Your task to perform on an android device: Clear all items from cart on newegg.com. Image 0: 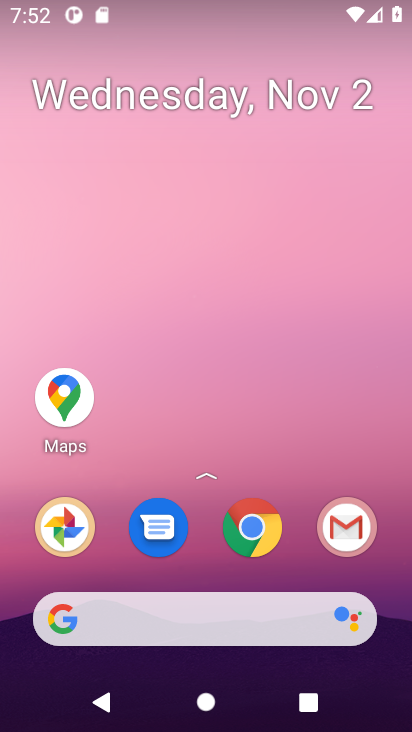
Step 0: click (264, 525)
Your task to perform on an android device: Clear all items from cart on newegg.com. Image 1: 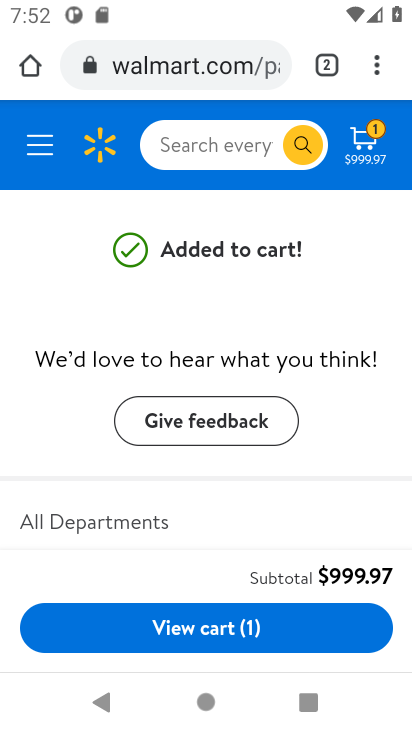
Step 1: click (210, 65)
Your task to perform on an android device: Clear all items from cart on newegg.com. Image 2: 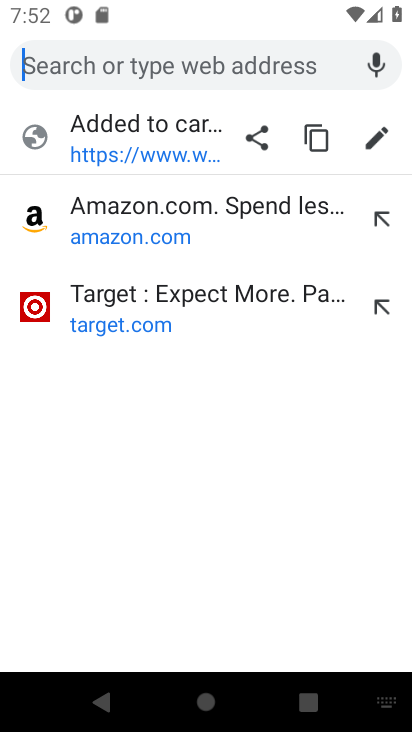
Step 2: type "newegg.com"
Your task to perform on an android device: Clear all items from cart on newegg.com. Image 3: 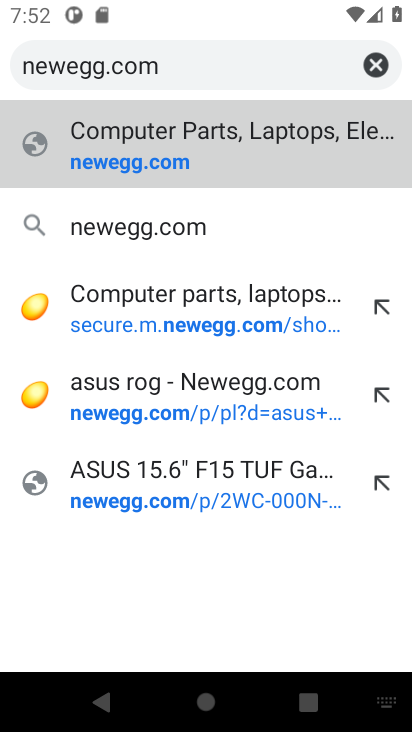
Step 3: click (230, 167)
Your task to perform on an android device: Clear all items from cart on newegg.com. Image 4: 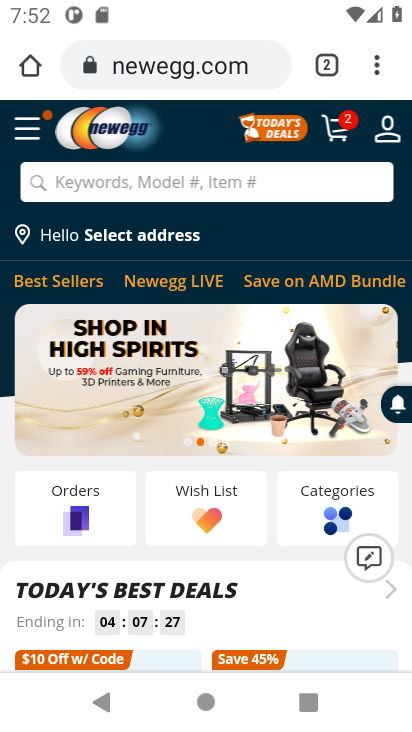
Step 4: click (339, 131)
Your task to perform on an android device: Clear all items from cart on newegg.com. Image 5: 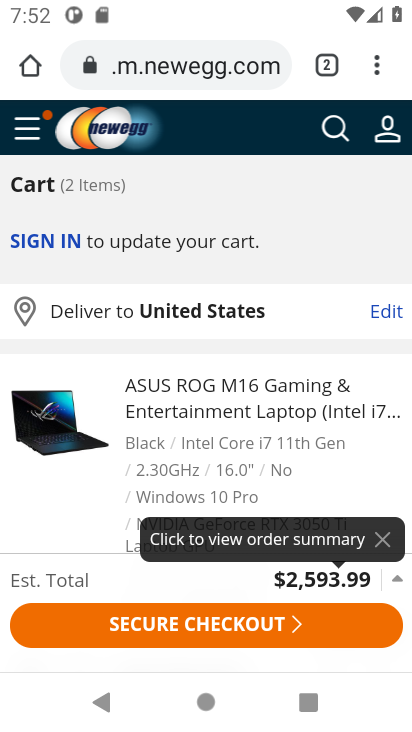
Step 5: drag from (288, 359) to (262, 190)
Your task to perform on an android device: Clear all items from cart on newegg.com. Image 6: 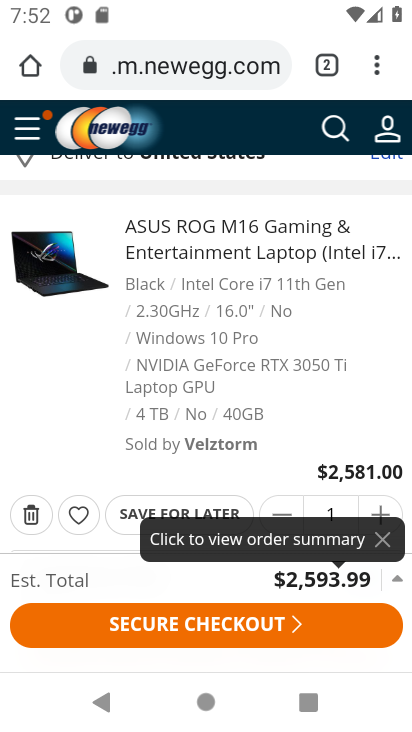
Step 6: click (278, 505)
Your task to perform on an android device: Clear all items from cart on newegg.com. Image 7: 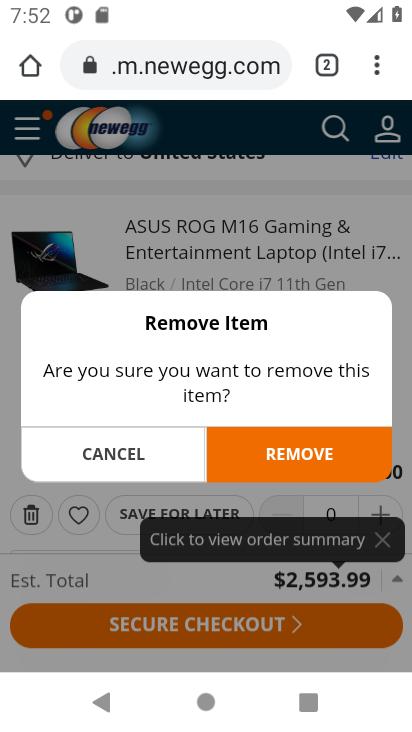
Step 7: click (300, 452)
Your task to perform on an android device: Clear all items from cart on newegg.com. Image 8: 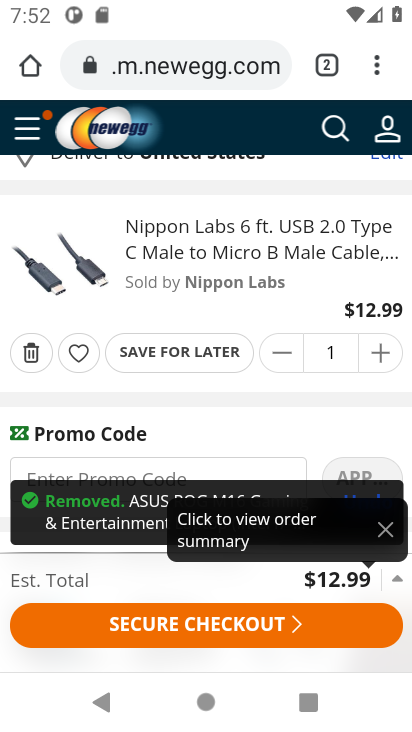
Step 8: click (283, 354)
Your task to perform on an android device: Clear all items from cart on newegg.com. Image 9: 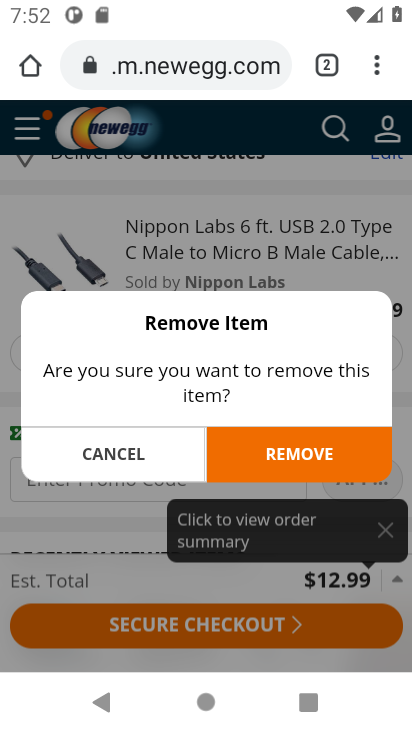
Step 9: click (286, 450)
Your task to perform on an android device: Clear all items from cart on newegg.com. Image 10: 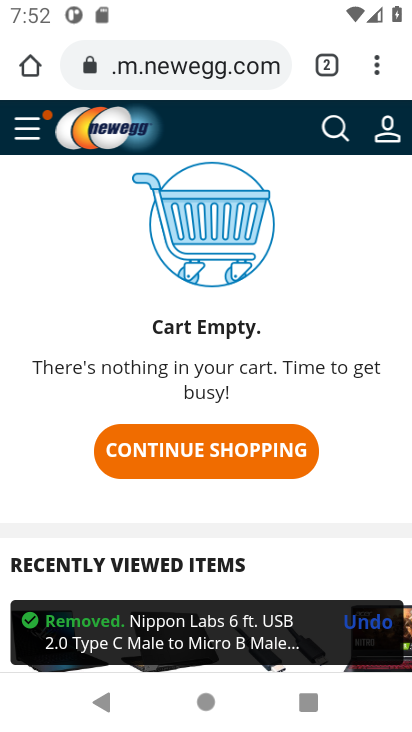
Step 10: task complete